Your task to perform on an android device: turn on bluetooth scan Image 0: 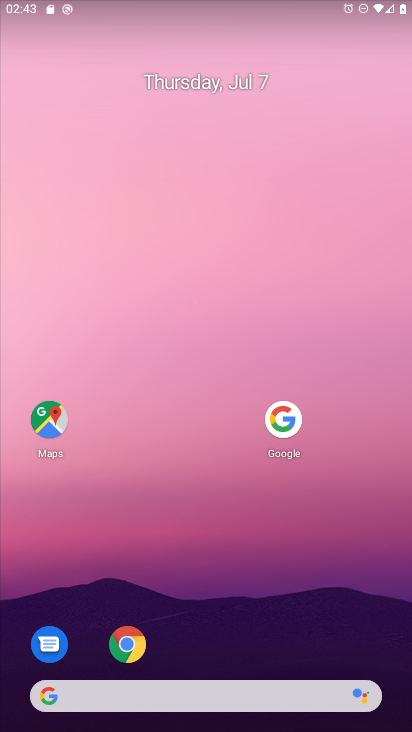
Step 0: drag from (202, 684) to (302, 149)
Your task to perform on an android device: turn on bluetooth scan Image 1: 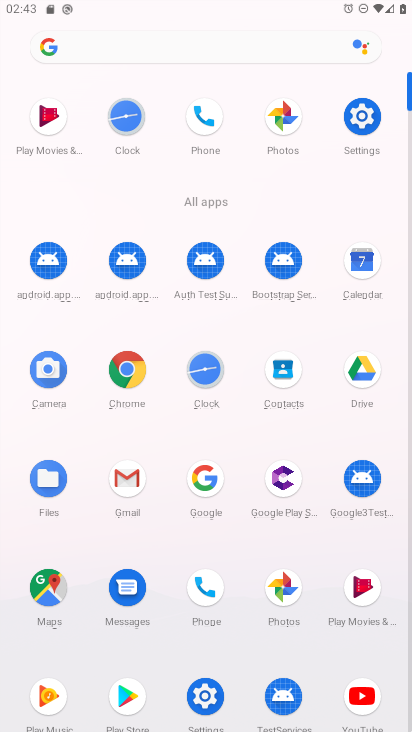
Step 1: click (357, 120)
Your task to perform on an android device: turn on bluetooth scan Image 2: 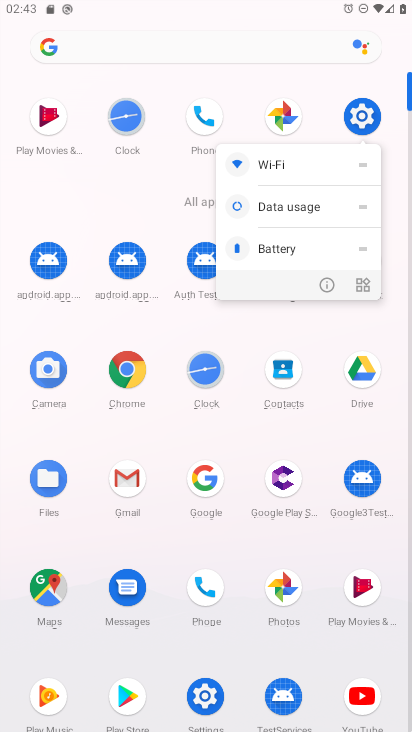
Step 2: click (359, 117)
Your task to perform on an android device: turn on bluetooth scan Image 3: 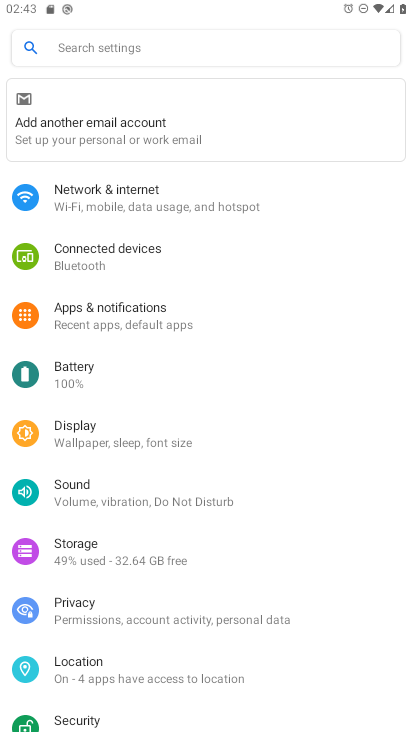
Step 3: click (86, 660)
Your task to perform on an android device: turn on bluetooth scan Image 4: 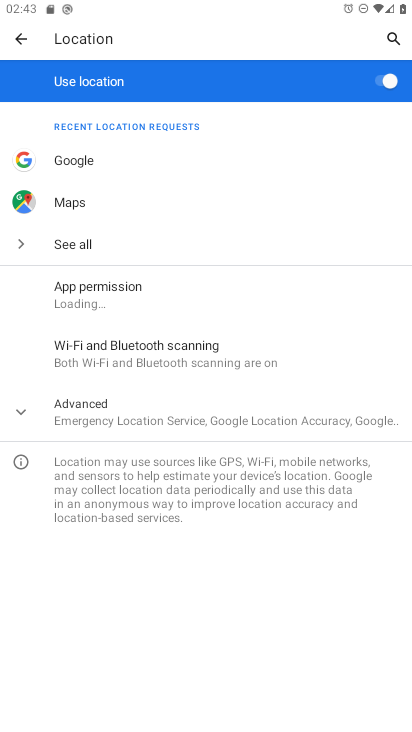
Step 4: click (217, 346)
Your task to perform on an android device: turn on bluetooth scan Image 5: 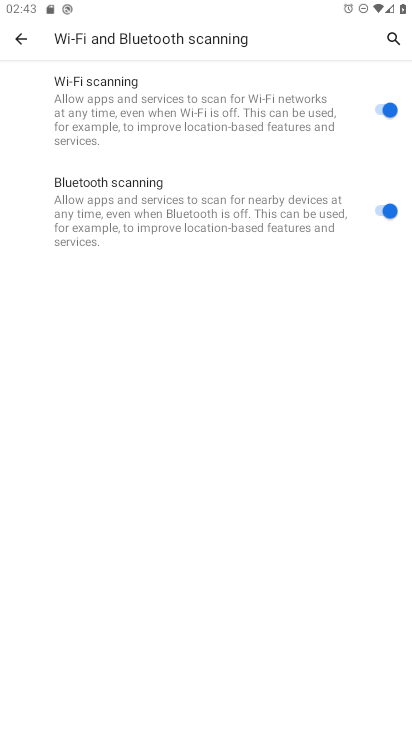
Step 5: task complete